Your task to perform on an android device: Clear all items from cart on bestbuy. Search for logitech g910 on bestbuy, select the first entry, and add it to the cart. Image 0: 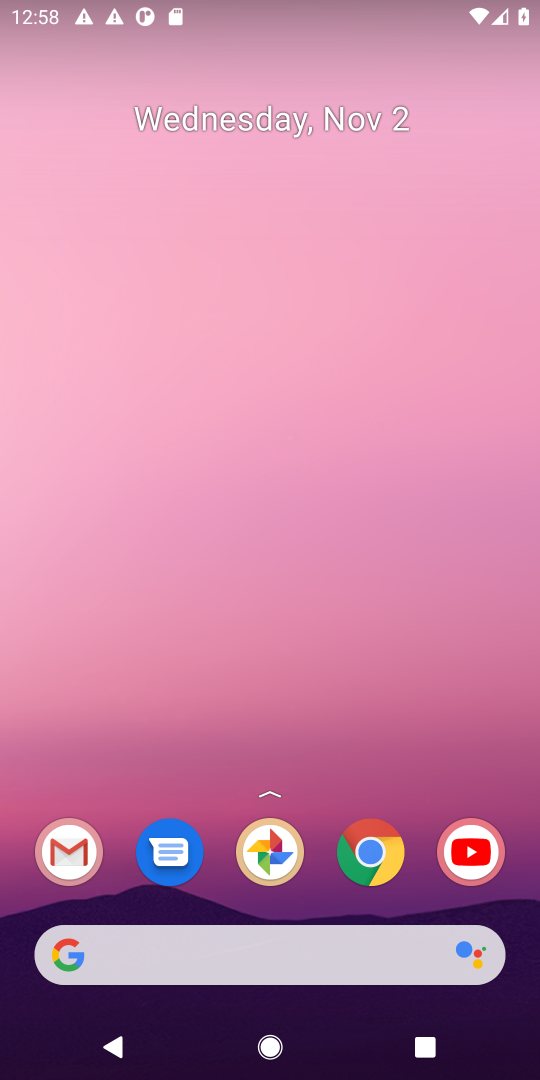
Step 0: click (70, 940)
Your task to perform on an android device: Clear all items from cart on bestbuy. Search for logitech g910 on bestbuy, select the first entry, and add it to the cart. Image 1: 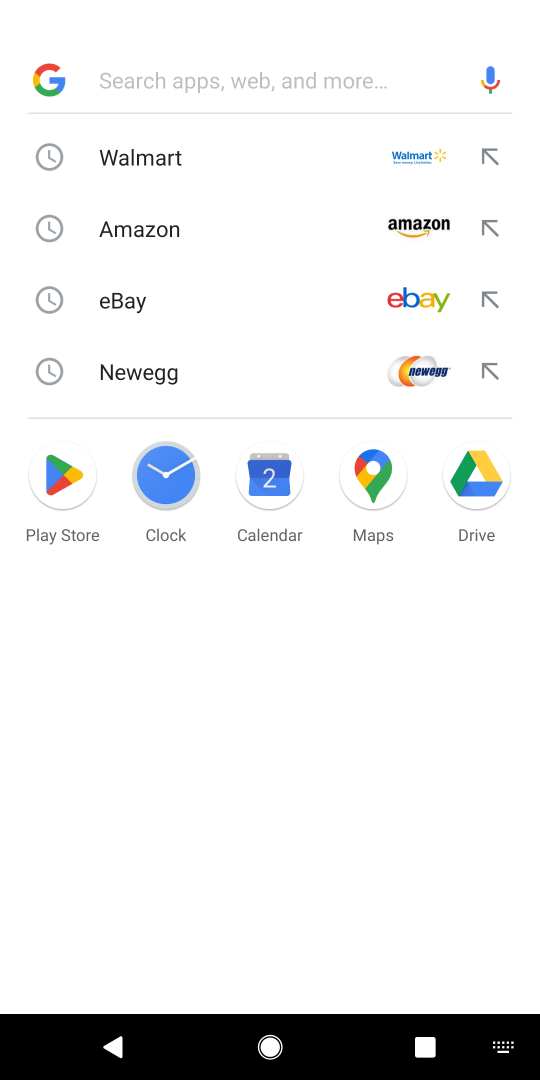
Step 1: type "bestbuy"
Your task to perform on an android device: Clear all items from cart on bestbuy. Search for logitech g910 on bestbuy, select the first entry, and add it to the cart. Image 2: 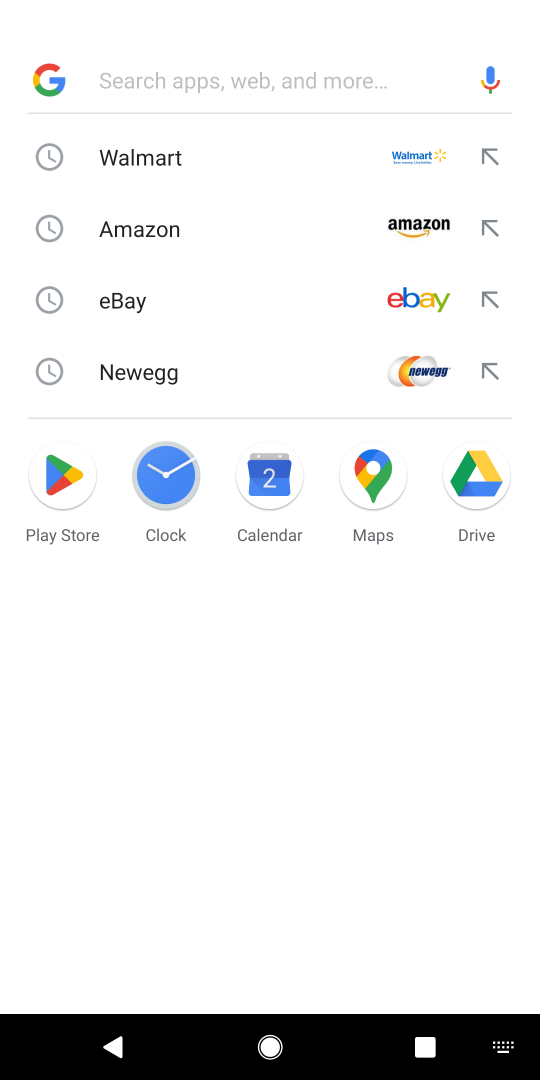
Step 2: click (129, 68)
Your task to perform on an android device: Clear all items from cart on bestbuy. Search for logitech g910 on bestbuy, select the first entry, and add it to the cart. Image 3: 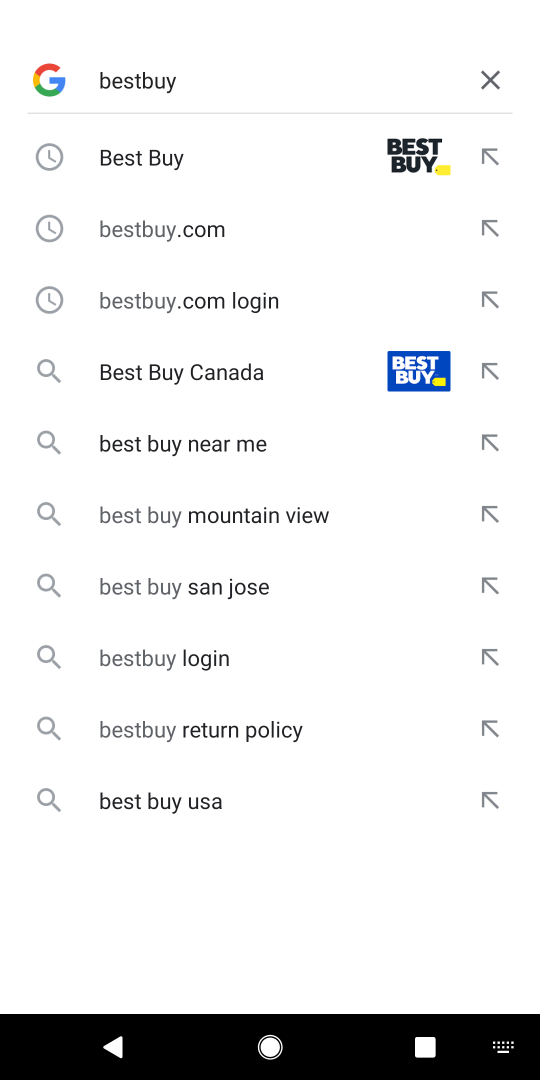
Step 3: click (127, 151)
Your task to perform on an android device: Clear all items from cart on bestbuy. Search for logitech g910 on bestbuy, select the first entry, and add it to the cart. Image 4: 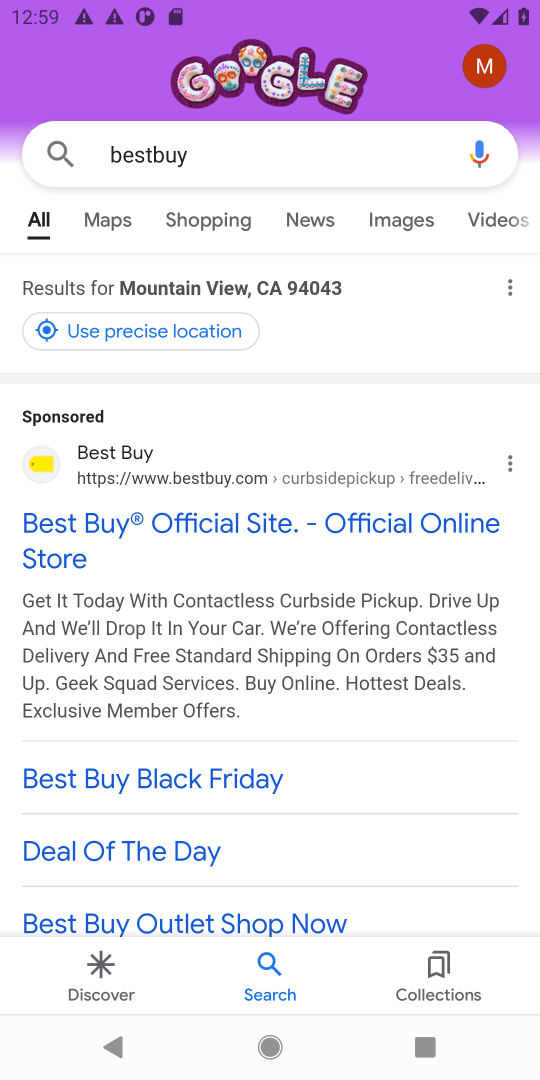
Step 4: drag from (269, 824) to (203, 287)
Your task to perform on an android device: Clear all items from cart on bestbuy. Search for logitech g910 on bestbuy, select the first entry, and add it to the cart. Image 5: 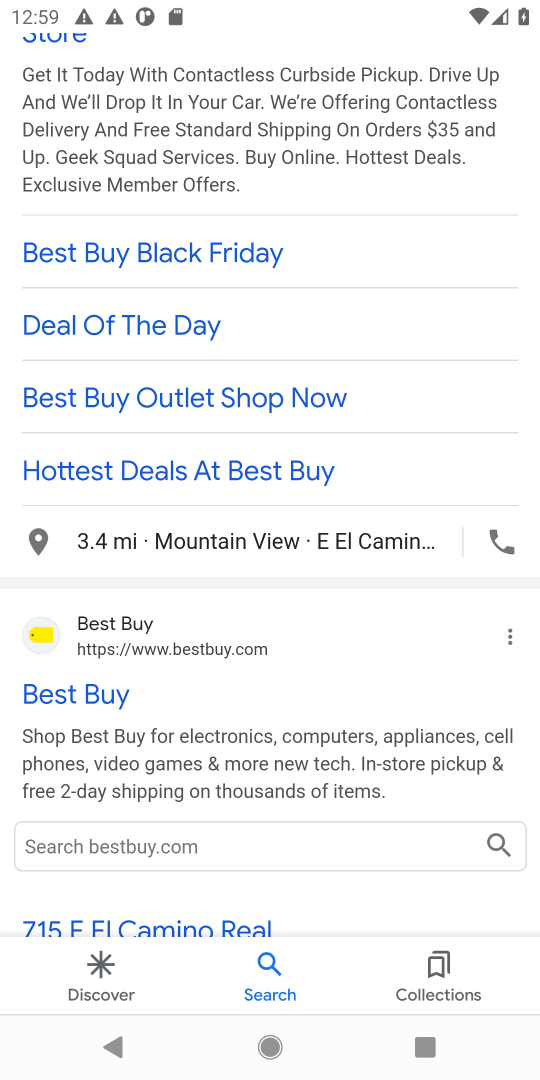
Step 5: click (40, 703)
Your task to perform on an android device: Clear all items from cart on bestbuy. Search for logitech g910 on bestbuy, select the first entry, and add it to the cart. Image 6: 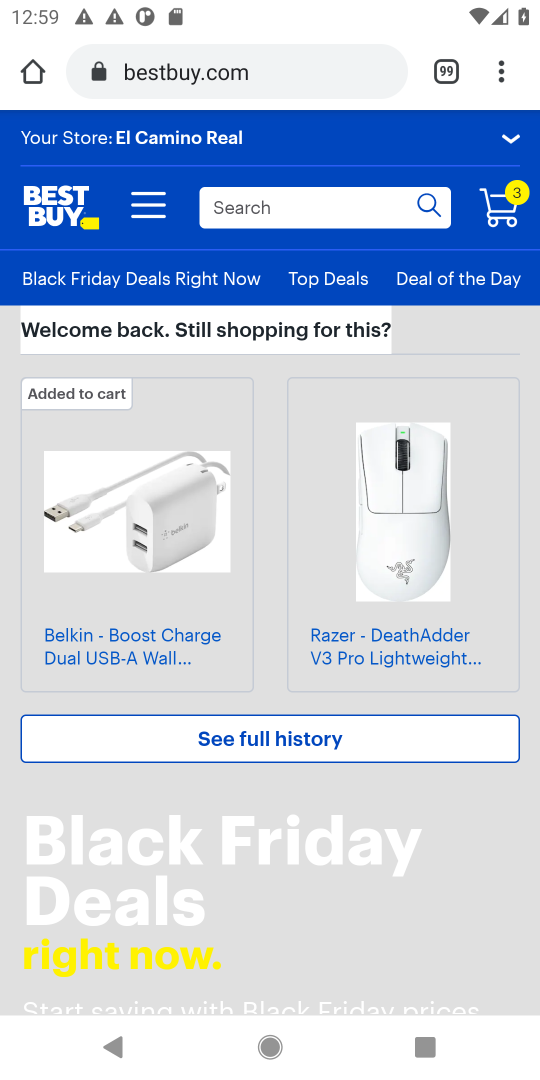
Step 6: click (304, 206)
Your task to perform on an android device: Clear all items from cart on bestbuy. Search for logitech g910 on bestbuy, select the first entry, and add it to the cart. Image 7: 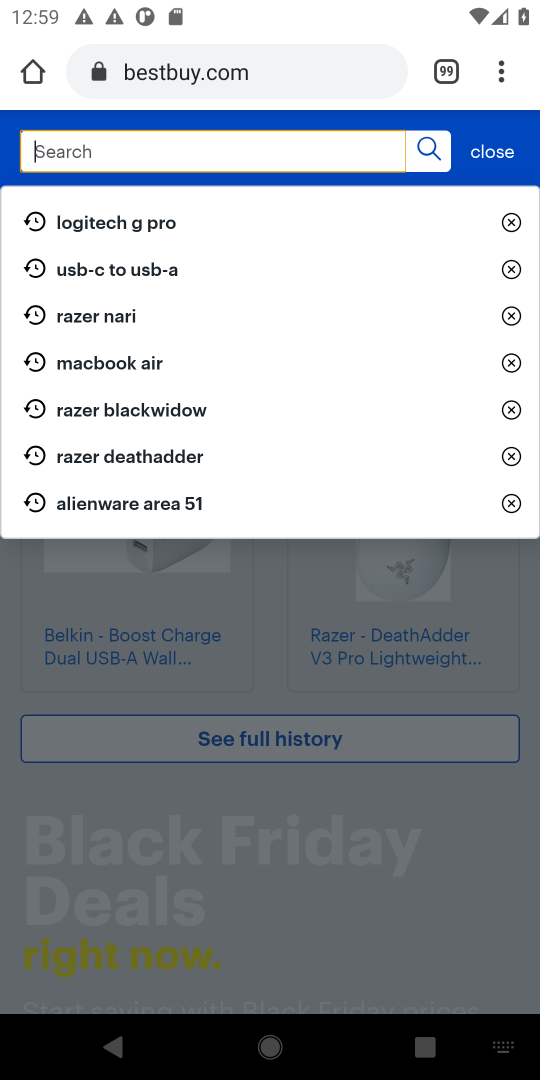
Step 7: type " logitech g910"
Your task to perform on an android device: Clear all items from cart on bestbuy. Search for logitech g910 on bestbuy, select the first entry, and add it to the cart. Image 8: 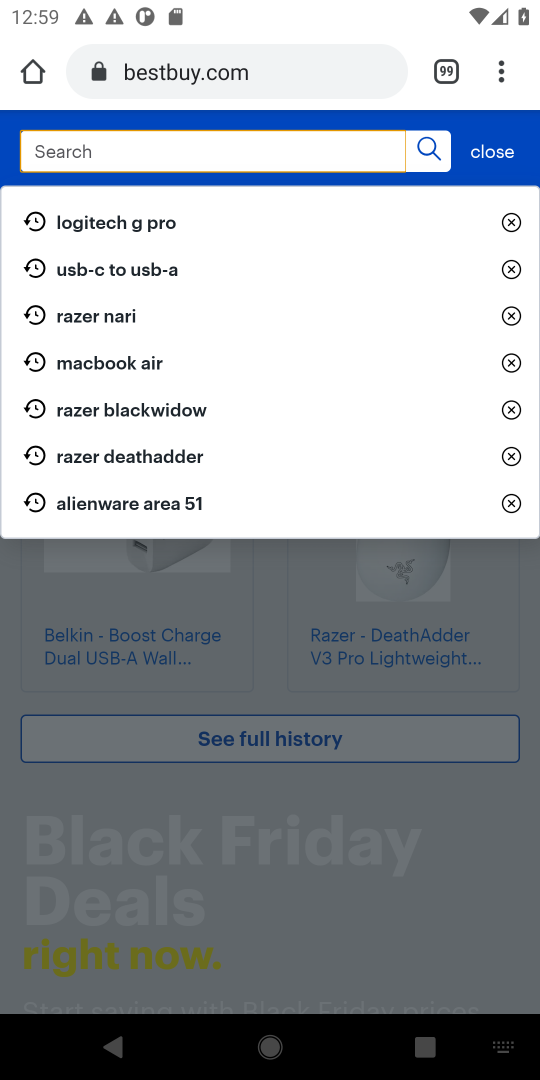
Step 8: click (93, 152)
Your task to perform on an android device: Clear all items from cart on bestbuy. Search for logitech g910 on bestbuy, select the first entry, and add it to the cart. Image 9: 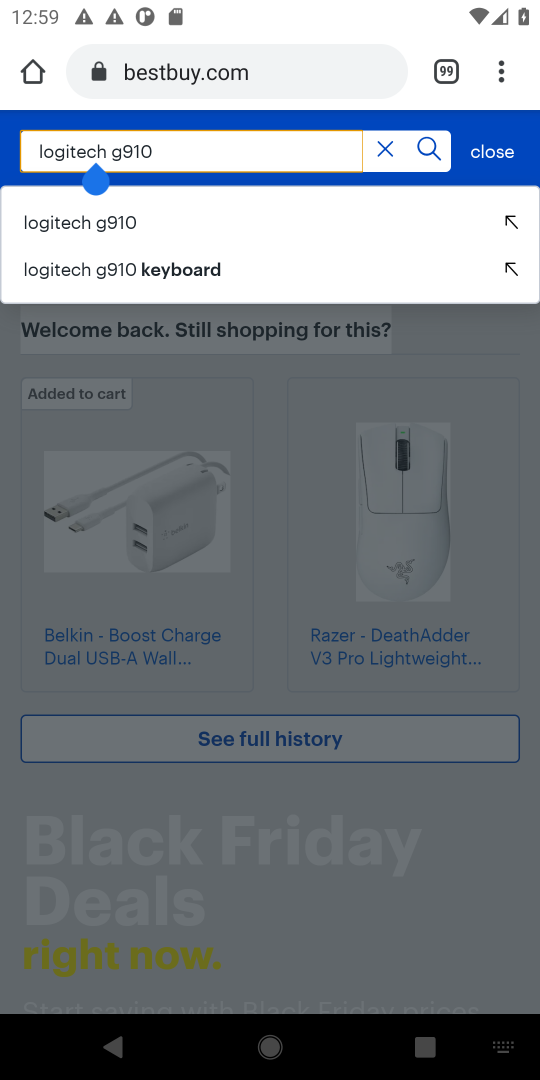
Step 9: press enter
Your task to perform on an android device: Clear all items from cart on bestbuy. Search for logitech g910 on bestbuy, select the first entry, and add it to the cart. Image 10: 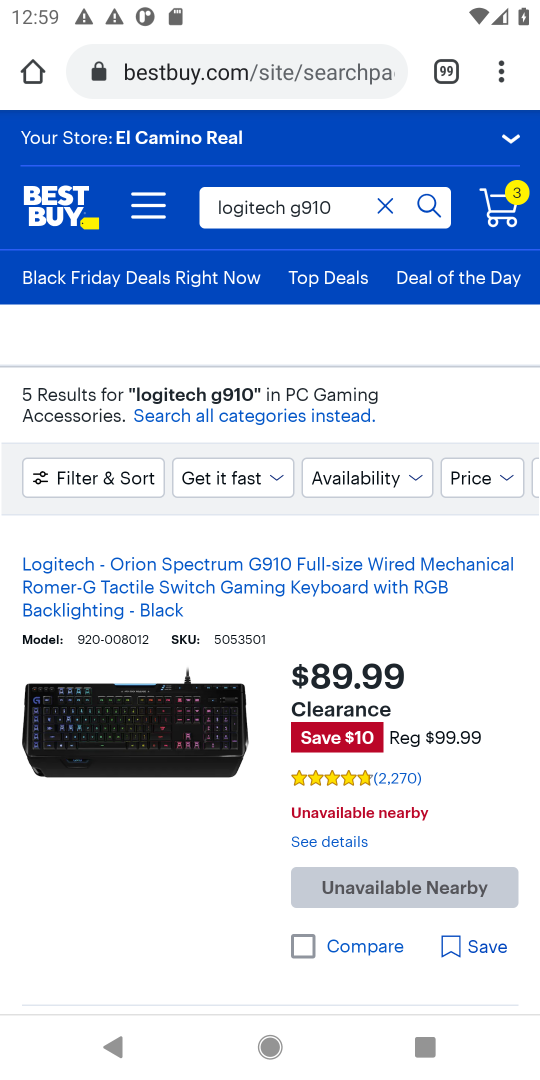
Step 10: click (326, 574)
Your task to perform on an android device: Clear all items from cart on bestbuy. Search for logitech g910 on bestbuy, select the first entry, and add it to the cart. Image 11: 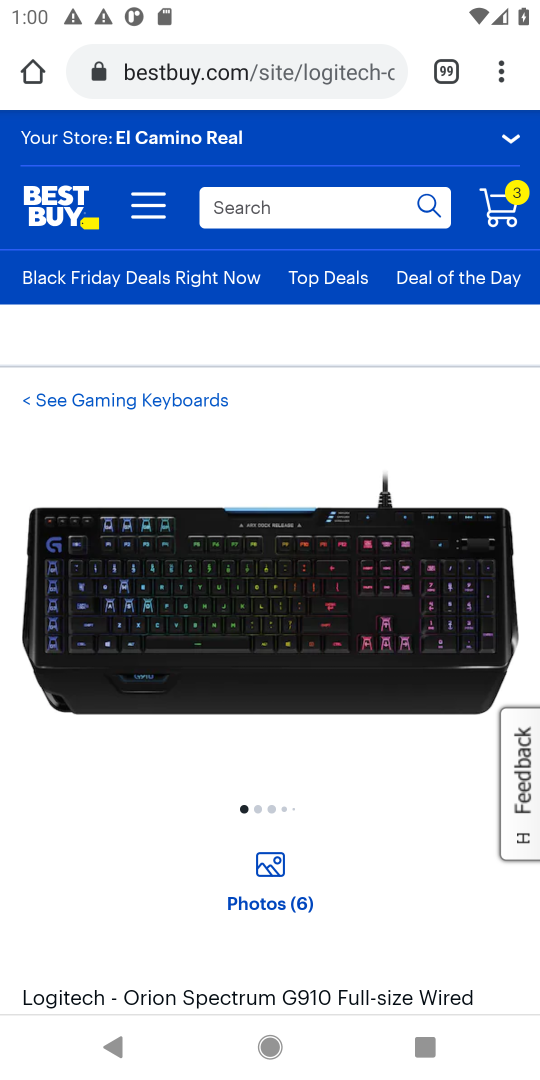
Step 11: task complete